Your task to perform on an android device: change your default location settings in chrome Image 0: 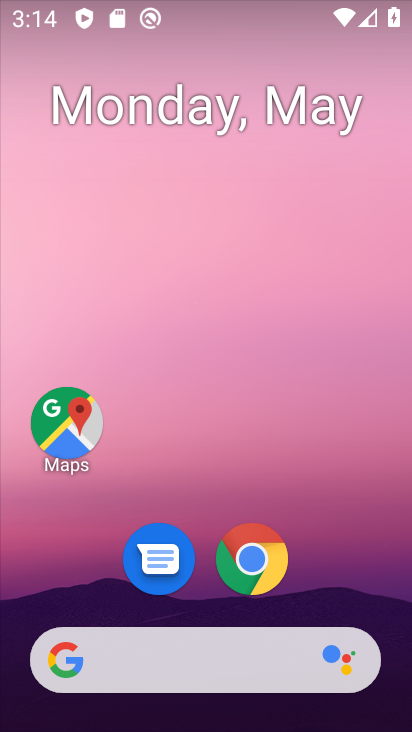
Step 0: drag from (296, 719) to (163, 130)
Your task to perform on an android device: change your default location settings in chrome Image 1: 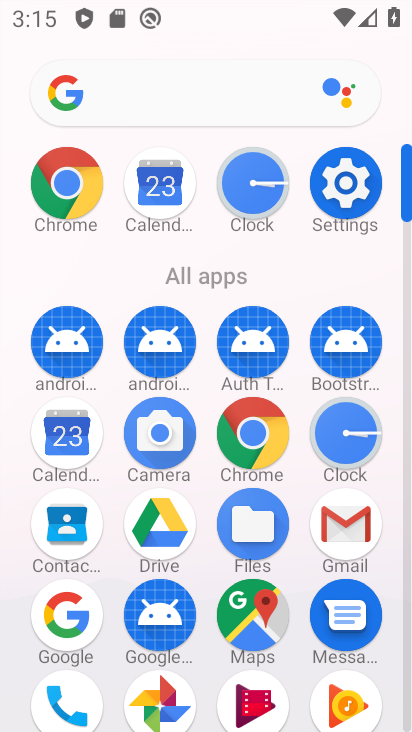
Step 1: click (262, 435)
Your task to perform on an android device: change your default location settings in chrome Image 2: 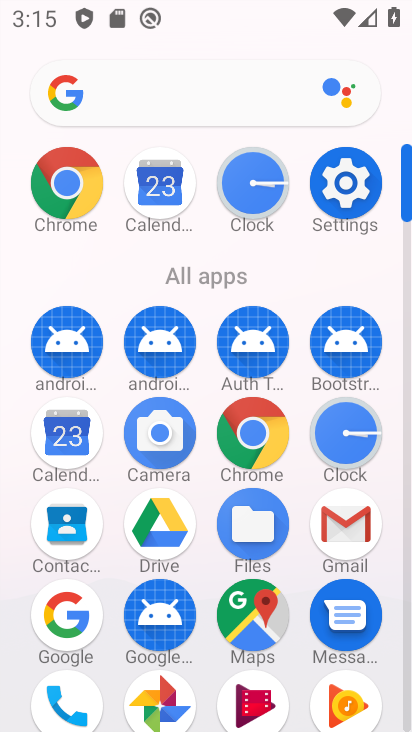
Step 2: click (262, 435)
Your task to perform on an android device: change your default location settings in chrome Image 3: 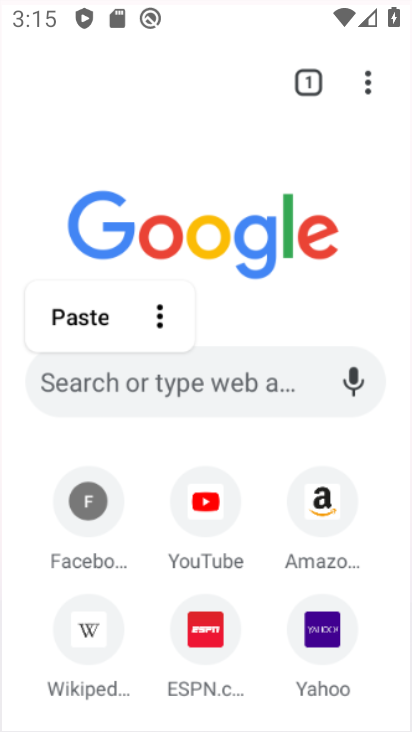
Step 3: click (262, 435)
Your task to perform on an android device: change your default location settings in chrome Image 4: 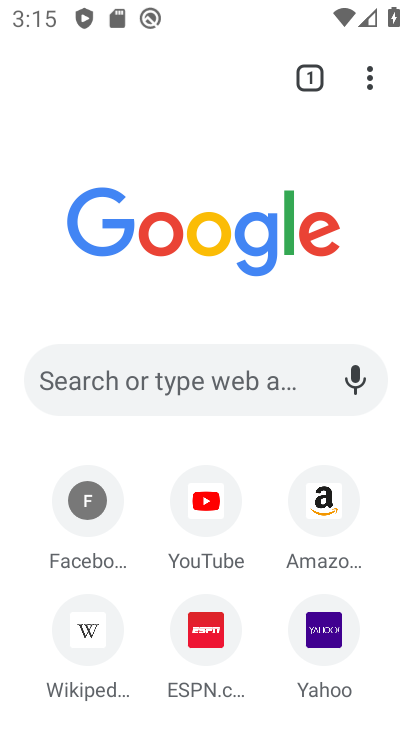
Step 4: click (369, 76)
Your task to perform on an android device: change your default location settings in chrome Image 5: 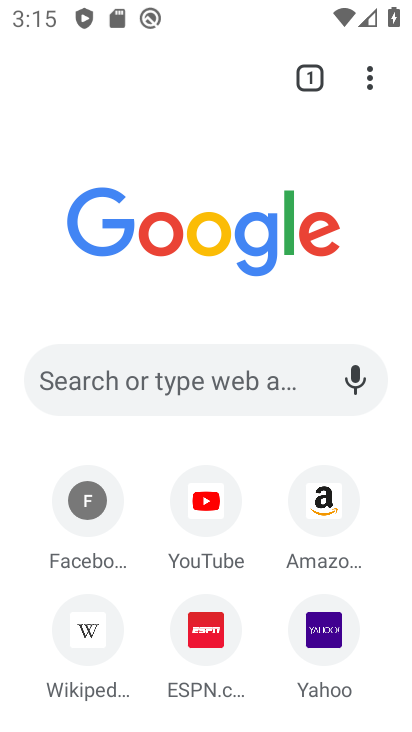
Step 5: click (369, 76)
Your task to perform on an android device: change your default location settings in chrome Image 6: 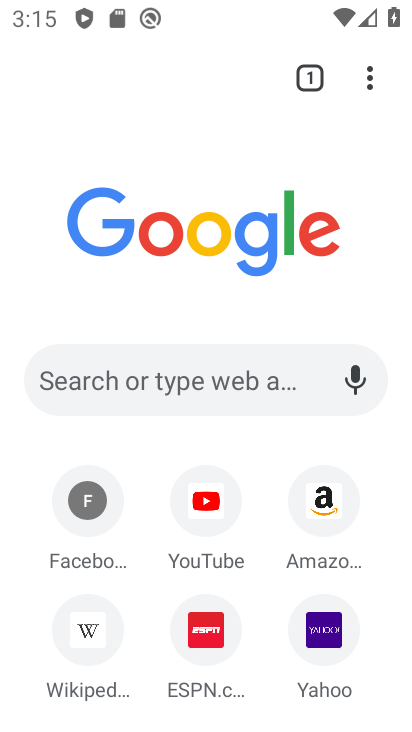
Step 6: click (369, 76)
Your task to perform on an android device: change your default location settings in chrome Image 7: 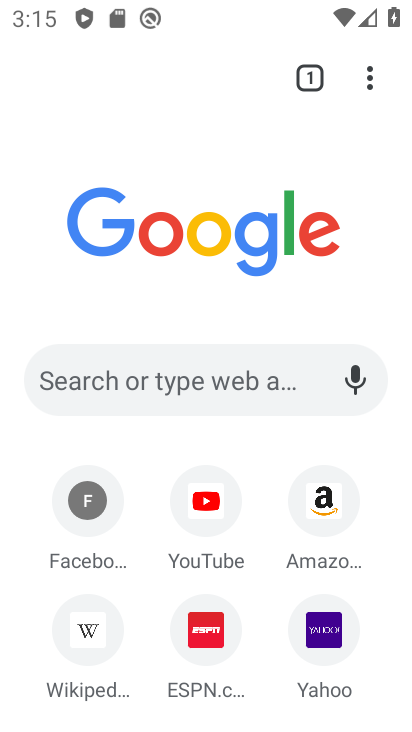
Step 7: click (369, 76)
Your task to perform on an android device: change your default location settings in chrome Image 8: 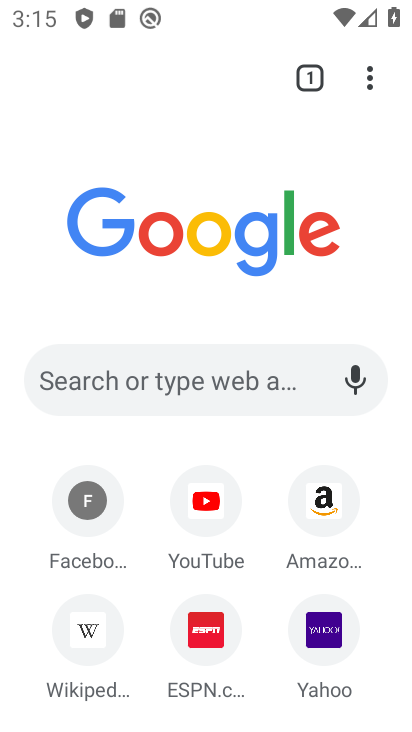
Step 8: drag from (369, 84) to (84, 613)
Your task to perform on an android device: change your default location settings in chrome Image 9: 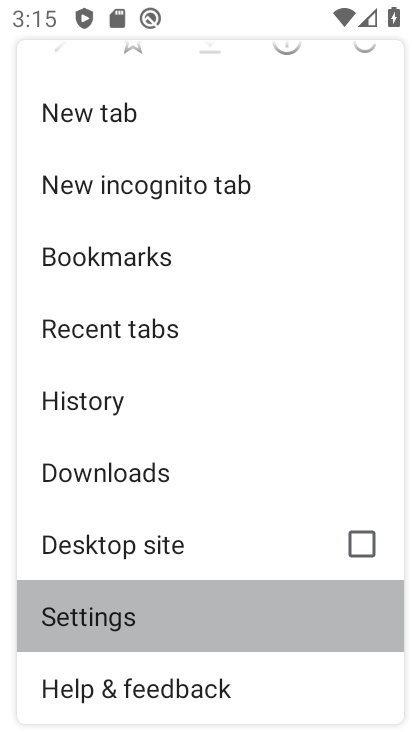
Step 9: click (86, 610)
Your task to perform on an android device: change your default location settings in chrome Image 10: 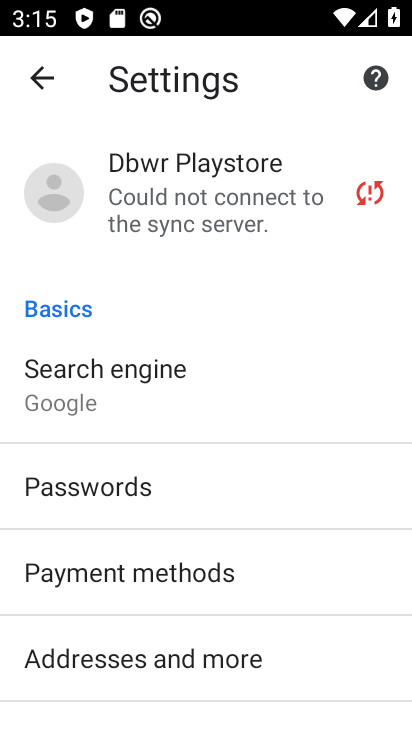
Step 10: drag from (191, 555) to (249, 171)
Your task to perform on an android device: change your default location settings in chrome Image 11: 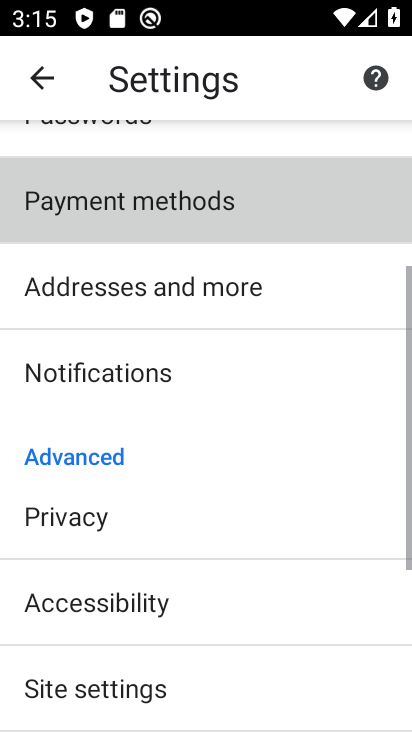
Step 11: drag from (233, 427) to (216, 99)
Your task to perform on an android device: change your default location settings in chrome Image 12: 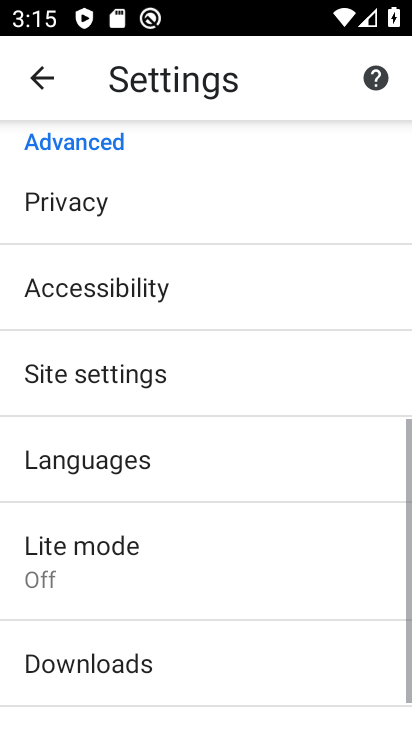
Step 12: drag from (202, 498) to (199, 124)
Your task to perform on an android device: change your default location settings in chrome Image 13: 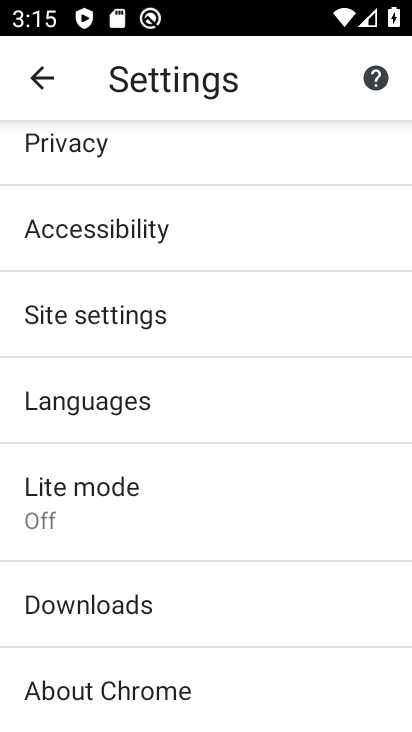
Step 13: click (84, 406)
Your task to perform on an android device: change your default location settings in chrome Image 14: 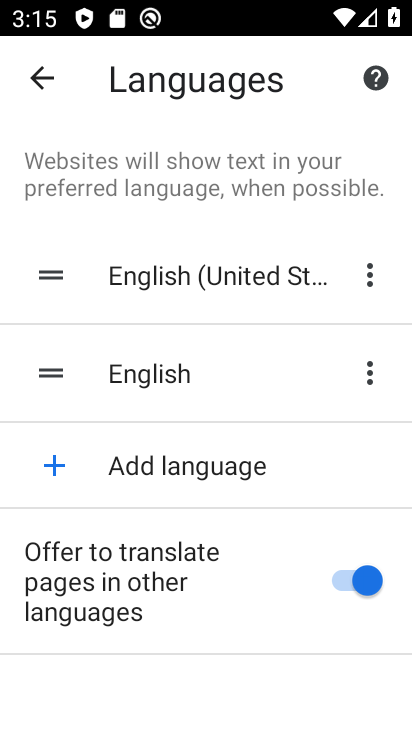
Step 14: drag from (189, 531) to (204, 219)
Your task to perform on an android device: change your default location settings in chrome Image 15: 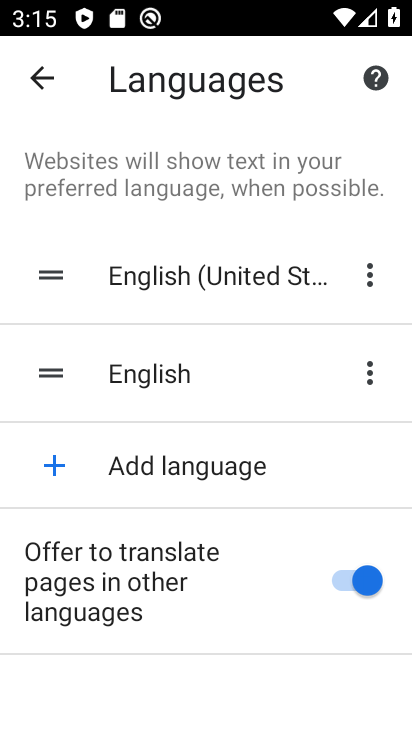
Step 15: drag from (205, 513) to (205, 197)
Your task to perform on an android device: change your default location settings in chrome Image 16: 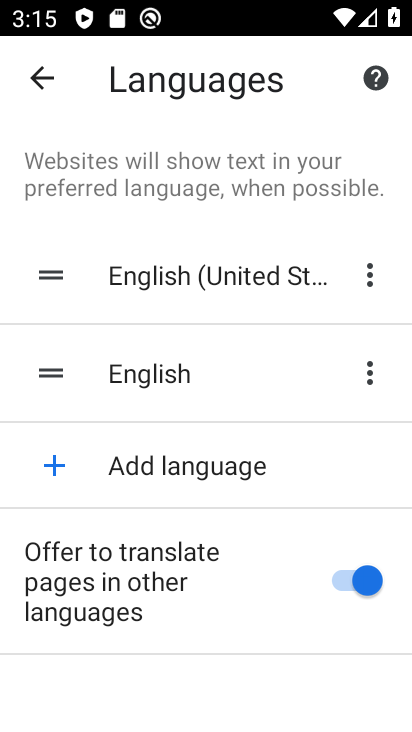
Step 16: drag from (203, 500) to (163, 186)
Your task to perform on an android device: change your default location settings in chrome Image 17: 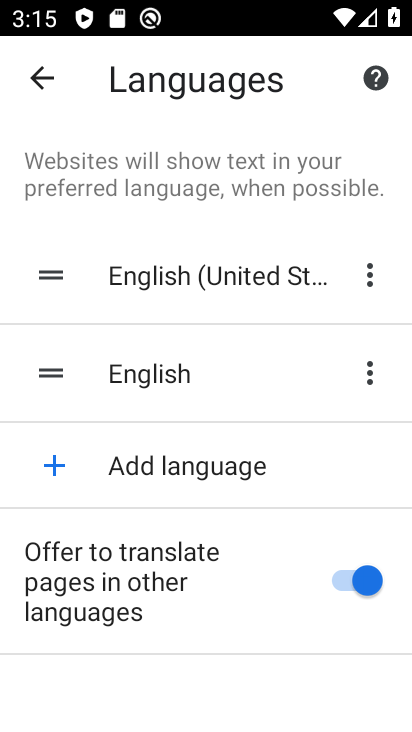
Step 17: drag from (231, 512) to (231, 180)
Your task to perform on an android device: change your default location settings in chrome Image 18: 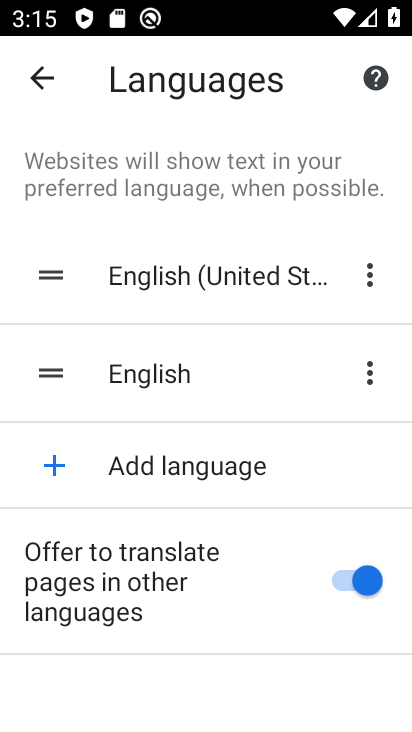
Step 18: drag from (213, 566) to (175, 177)
Your task to perform on an android device: change your default location settings in chrome Image 19: 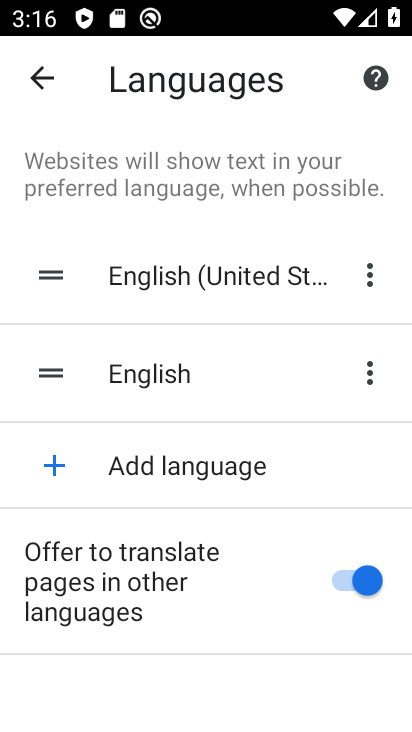
Step 19: drag from (221, 607) to (248, 333)
Your task to perform on an android device: change your default location settings in chrome Image 20: 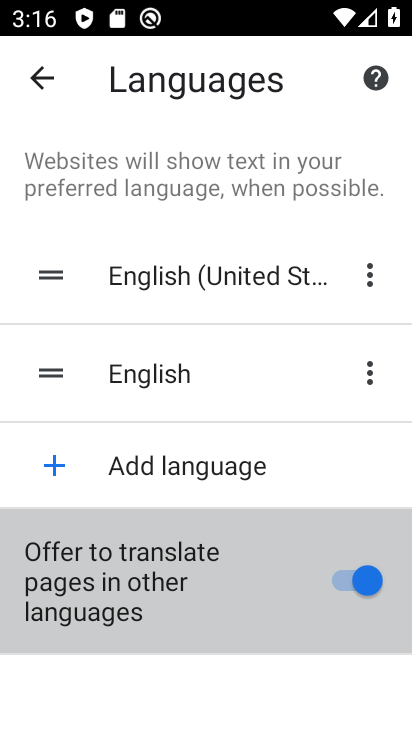
Step 20: drag from (278, 574) to (248, 304)
Your task to perform on an android device: change your default location settings in chrome Image 21: 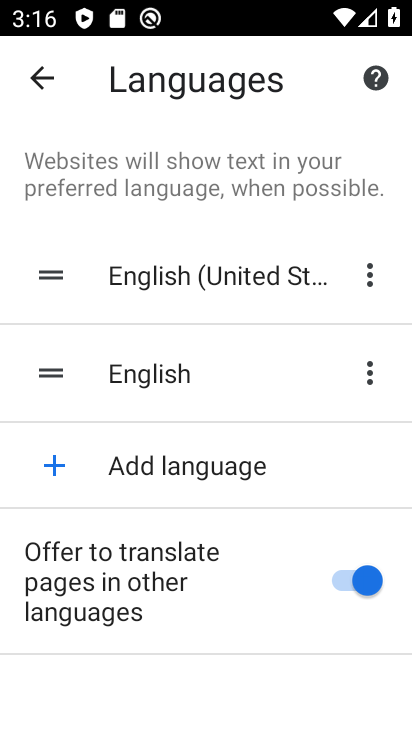
Step 21: click (34, 77)
Your task to perform on an android device: change your default location settings in chrome Image 22: 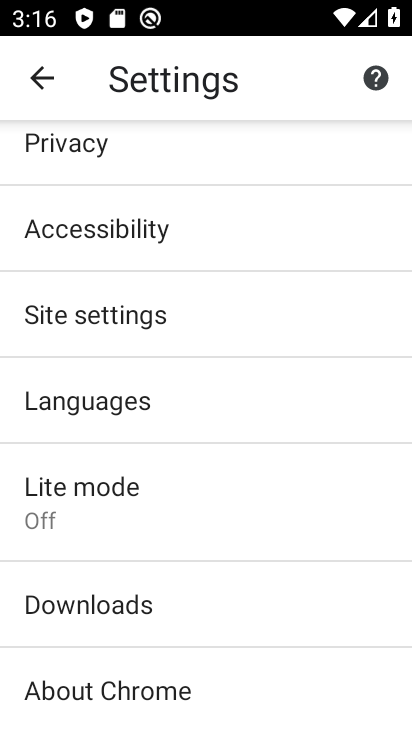
Step 22: click (92, 322)
Your task to perform on an android device: change your default location settings in chrome Image 23: 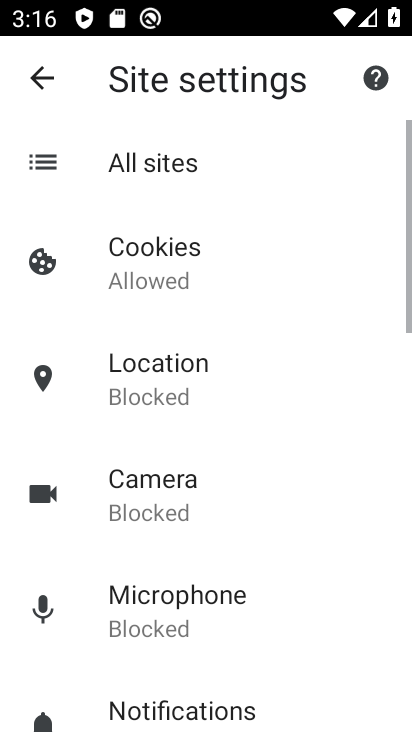
Step 23: click (164, 386)
Your task to perform on an android device: change your default location settings in chrome Image 24: 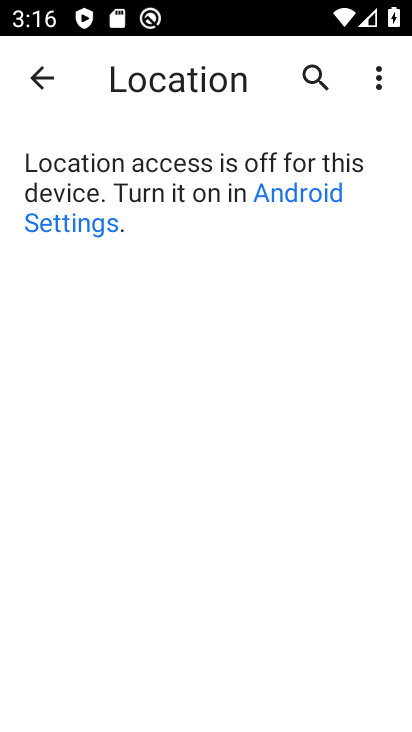
Step 24: task complete